Your task to perform on an android device: Go to Wikipedia Image 0: 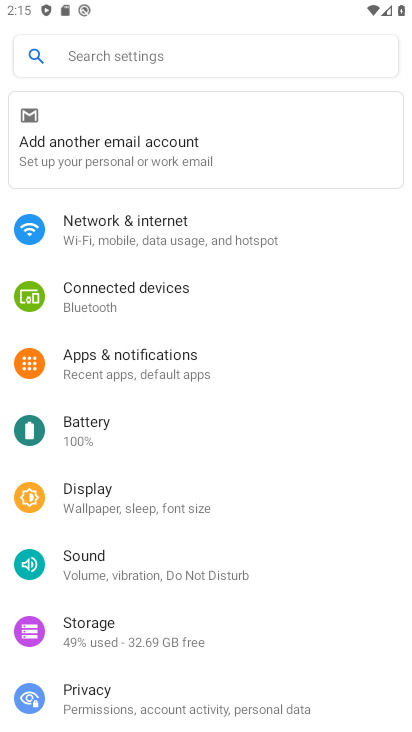
Step 0: press home button
Your task to perform on an android device: Go to Wikipedia Image 1: 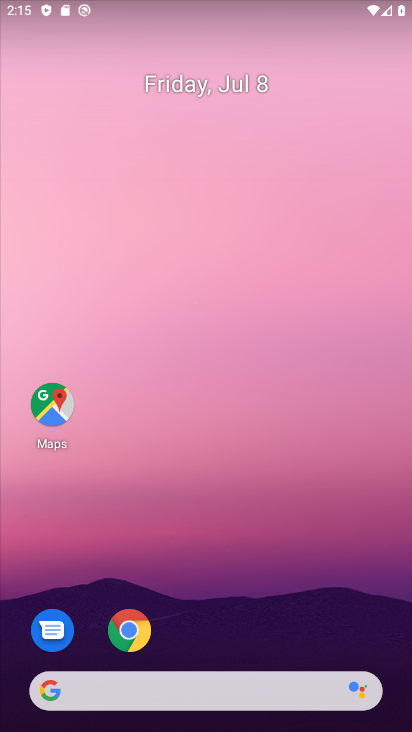
Step 1: drag from (250, 601) to (233, 229)
Your task to perform on an android device: Go to Wikipedia Image 2: 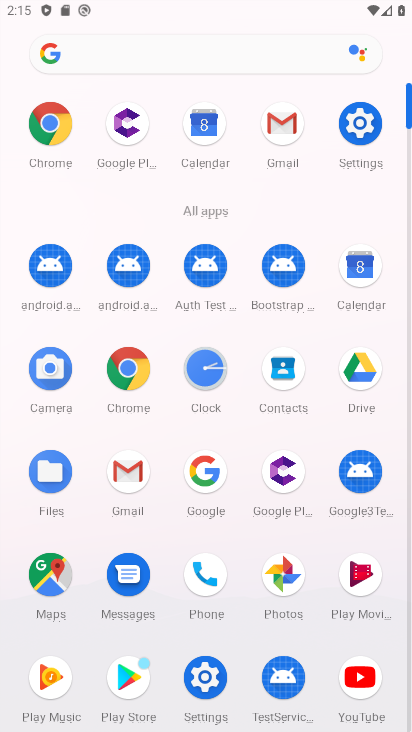
Step 2: click (164, 64)
Your task to perform on an android device: Go to Wikipedia Image 3: 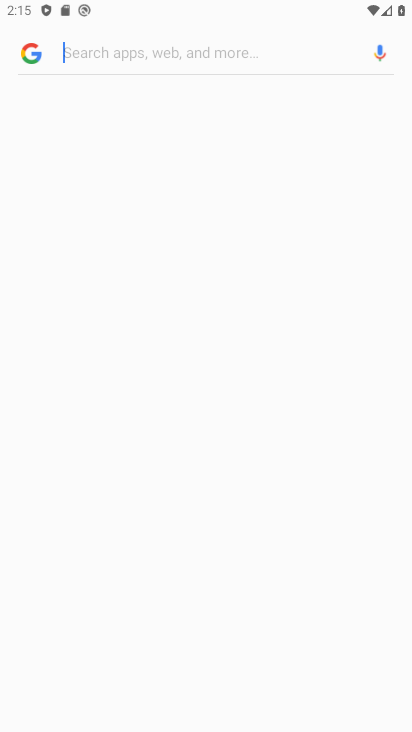
Step 3: type ""
Your task to perform on an android device: Go to Wikipedia Image 4: 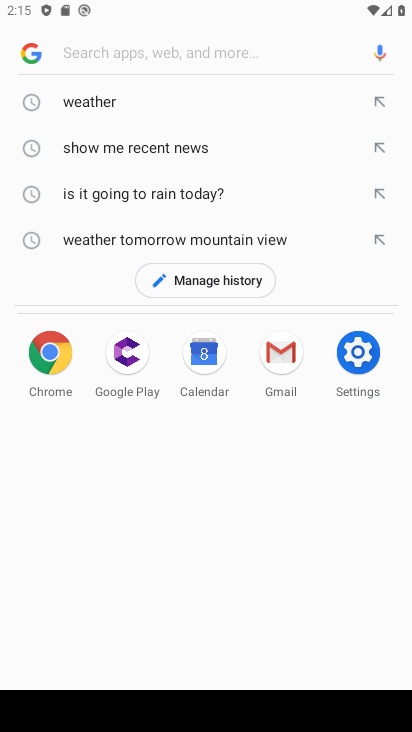
Step 4: type "wikipedia"
Your task to perform on an android device: Go to Wikipedia Image 5: 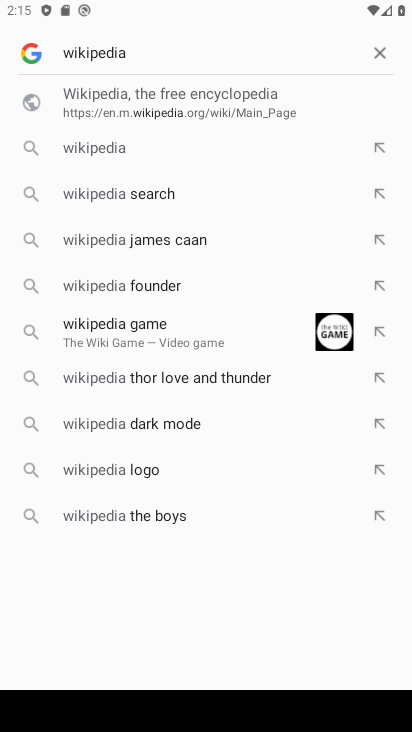
Step 5: click (87, 115)
Your task to perform on an android device: Go to Wikipedia Image 6: 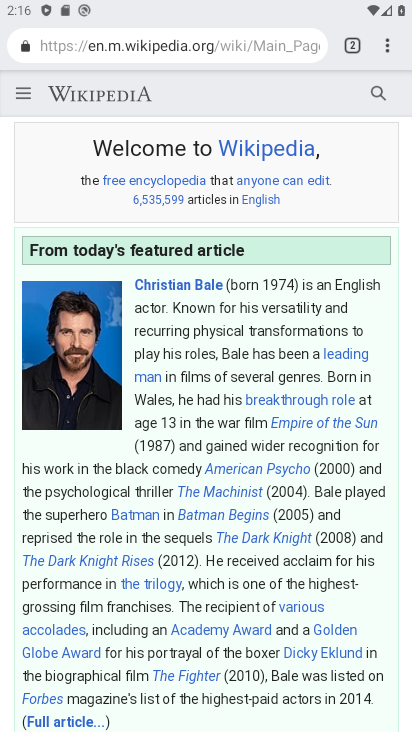
Step 6: task complete